Your task to perform on an android device: Go to ESPN.com Image 0: 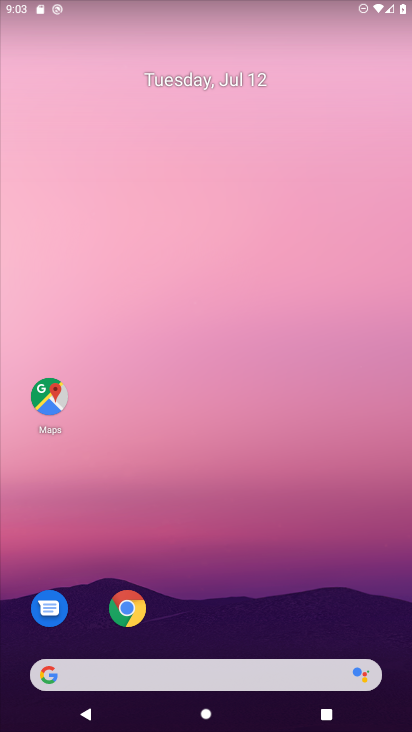
Step 0: click (120, 678)
Your task to perform on an android device: Go to ESPN.com Image 1: 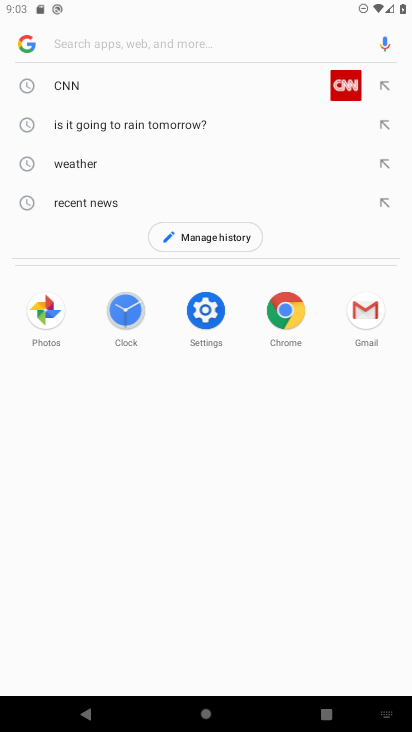
Step 1: click (282, 309)
Your task to perform on an android device: Go to ESPN.com Image 2: 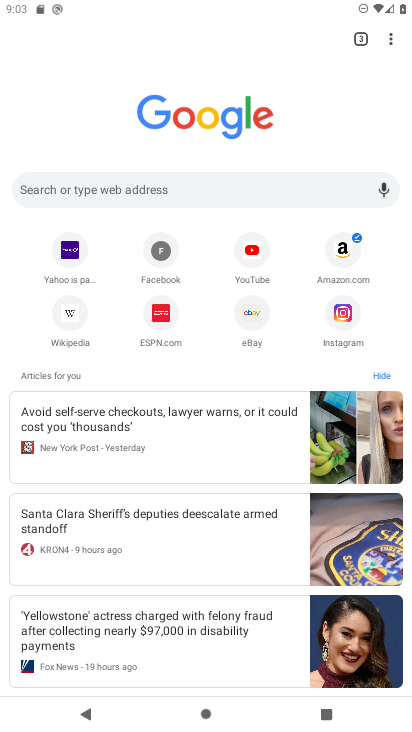
Step 2: click (157, 318)
Your task to perform on an android device: Go to ESPN.com Image 3: 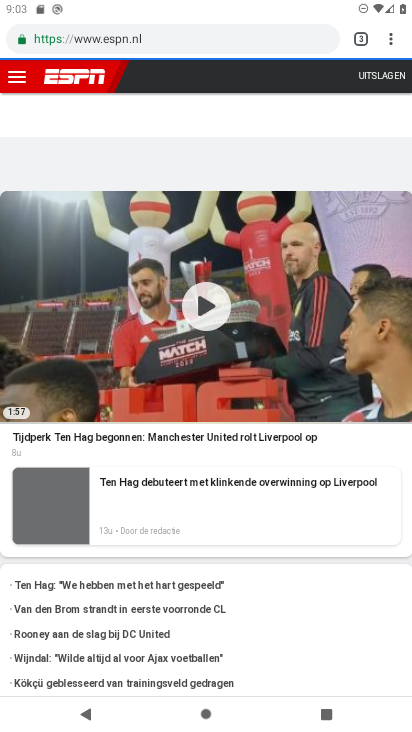
Step 3: task complete